Your task to perform on an android device: turn on showing notifications on the lock screen Image 0: 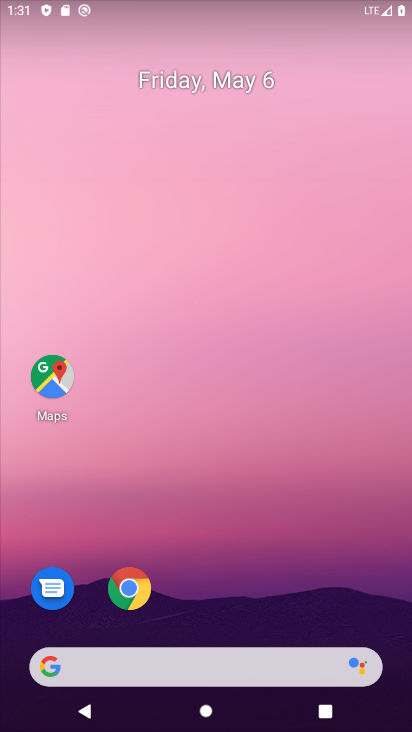
Step 0: drag from (356, 614) to (318, 211)
Your task to perform on an android device: turn on showing notifications on the lock screen Image 1: 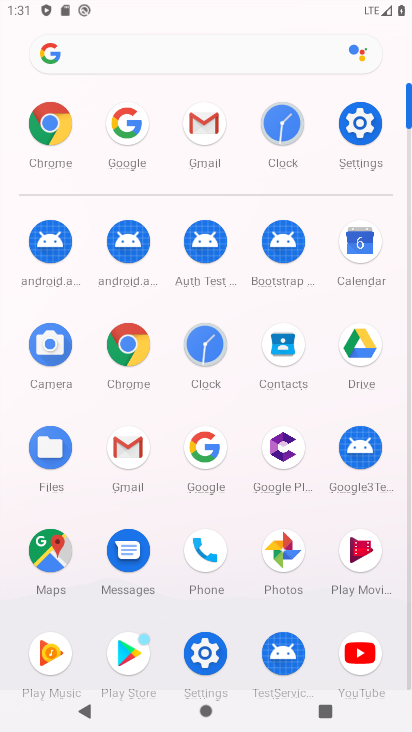
Step 1: click (202, 646)
Your task to perform on an android device: turn on showing notifications on the lock screen Image 2: 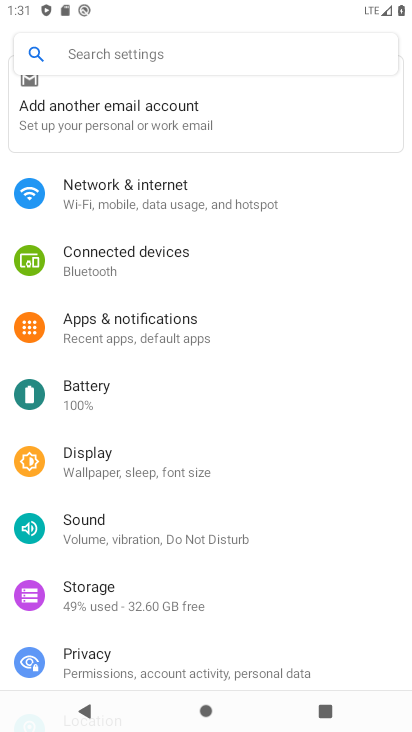
Step 2: click (182, 328)
Your task to perform on an android device: turn on showing notifications on the lock screen Image 3: 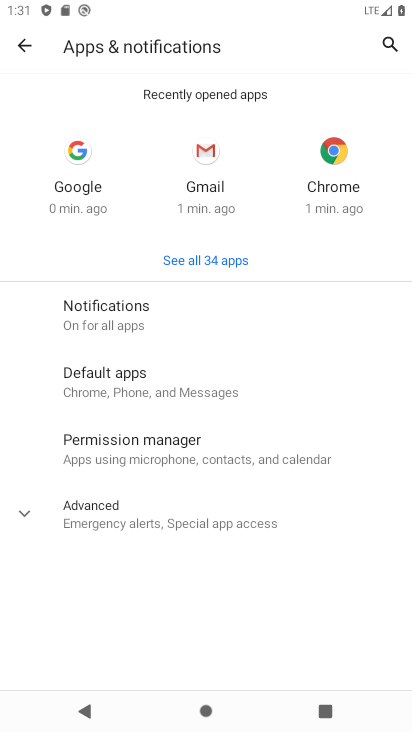
Step 3: click (181, 326)
Your task to perform on an android device: turn on showing notifications on the lock screen Image 4: 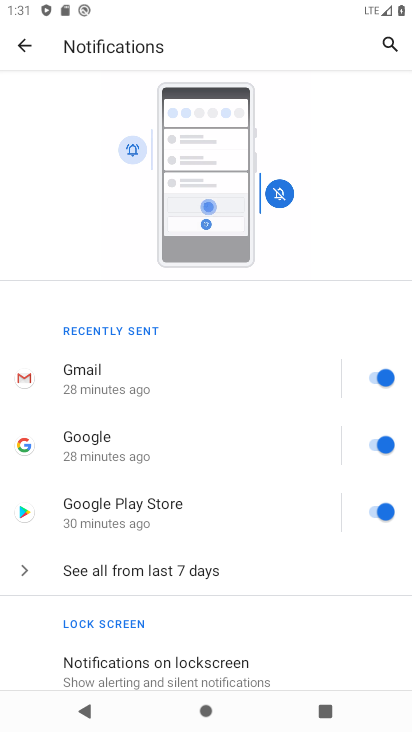
Step 4: click (234, 661)
Your task to perform on an android device: turn on showing notifications on the lock screen Image 5: 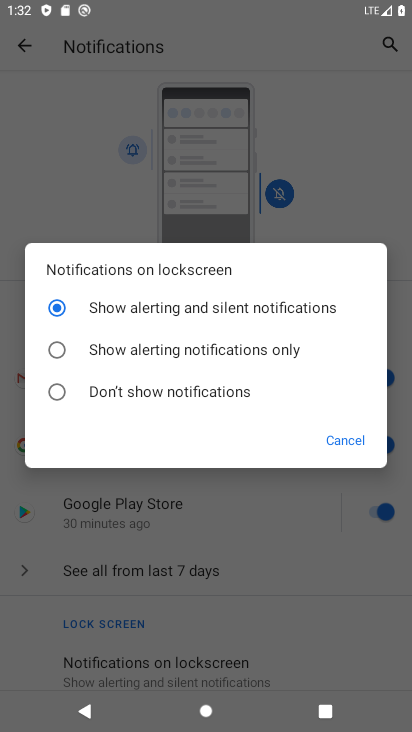
Step 5: task complete